Your task to perform on an android device: see sites visited before in the chrome app Image 0: 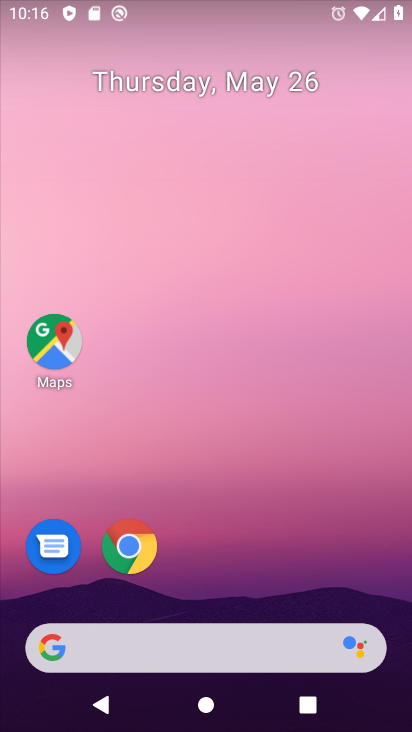
Step 0: click (130, 544)
Your task to perform on an android device: see sites visited before in the chrome app Image 1: 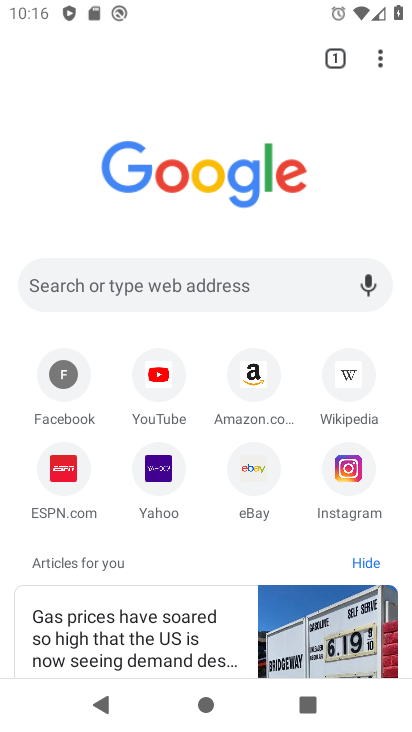
Step 1: click (383, 57)
Your task to perform on an android device: see sites visited before in the chrome app Image 2: 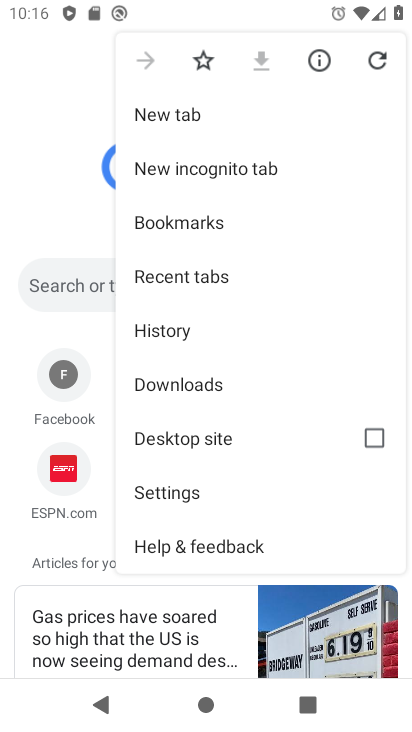
Step 2: click (180, 340)
Your task to perform on an android device: see sites visited before in the chrome app Image 3: 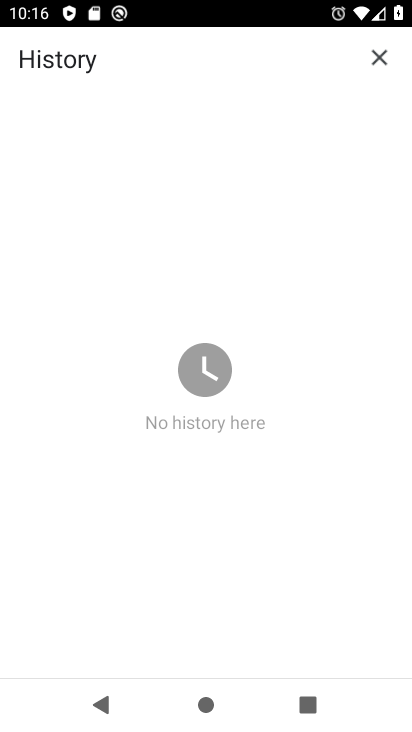
Step 3: task complete